Your task to perform on an android device: add a contact in the contacts app Image 0: 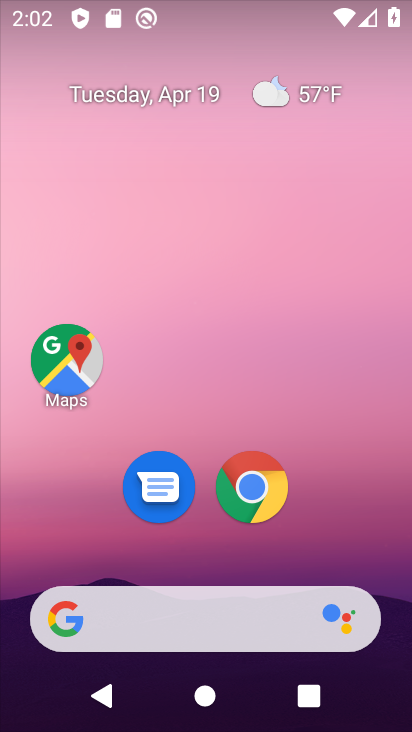
Step 0: drag from (178, 365) to (198, 13)
Your task to perform on an android device: add a contact in the contacts app Image 1: 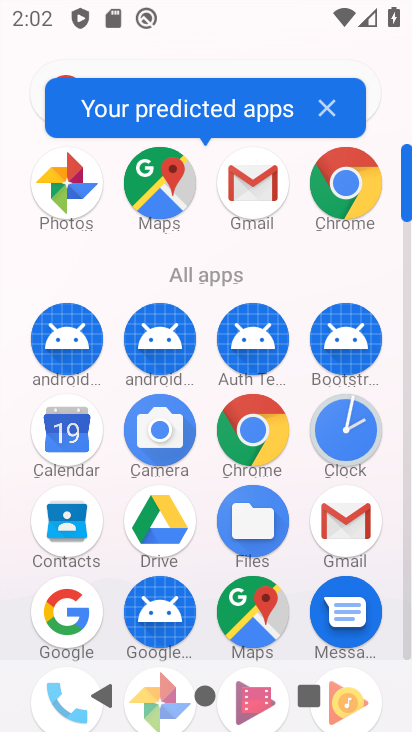
Step 1: click (76, 504)
Your task to perform on an android device: add a contact in the contacts app Image 2: 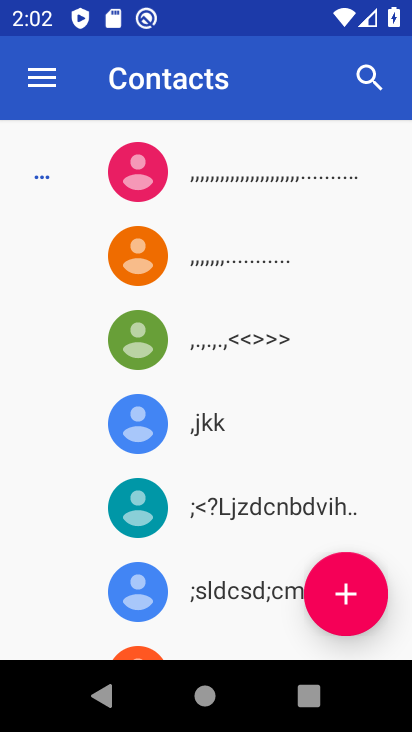
Step 2: click (363, 593)
Your task to perform on an android device: add a contact in the contacts app Image 3: 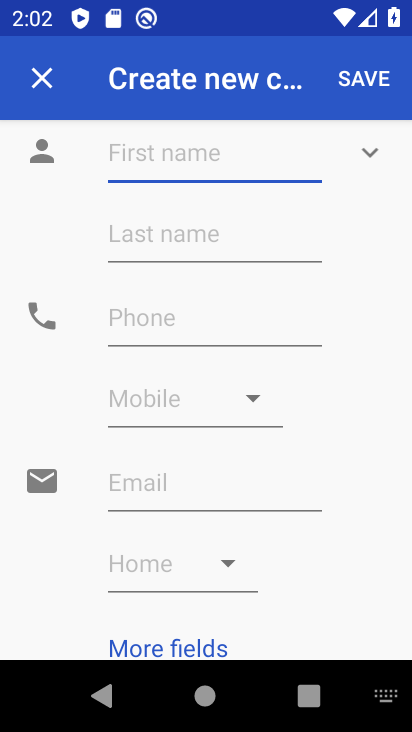
Step 3: type "hop"
Your task to perform on an android device: add a contact in the contacts app Image 4: 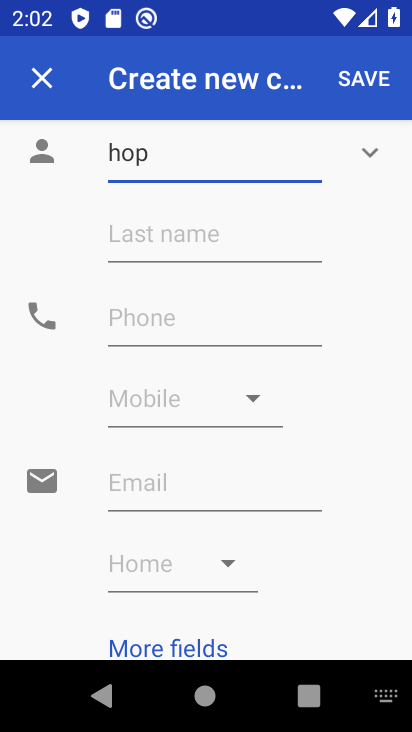
Step 4: click (311, 319)
Your task to perform on an android device: add a contact in the contacts app Image 5: 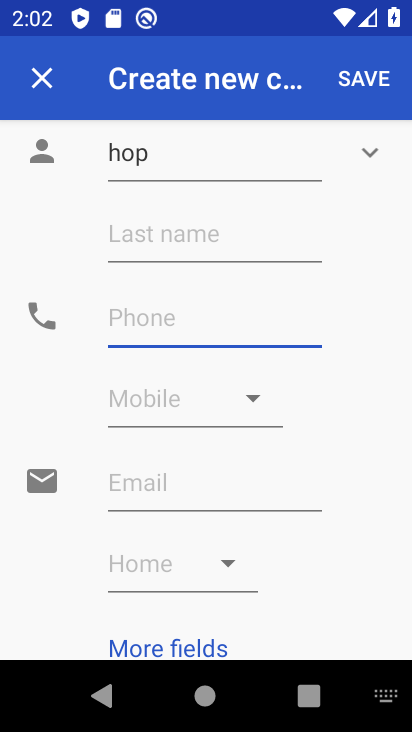
Step 5: type "987654345"
Your task to perform on an android device: add a contact in the contacts app Image 6: 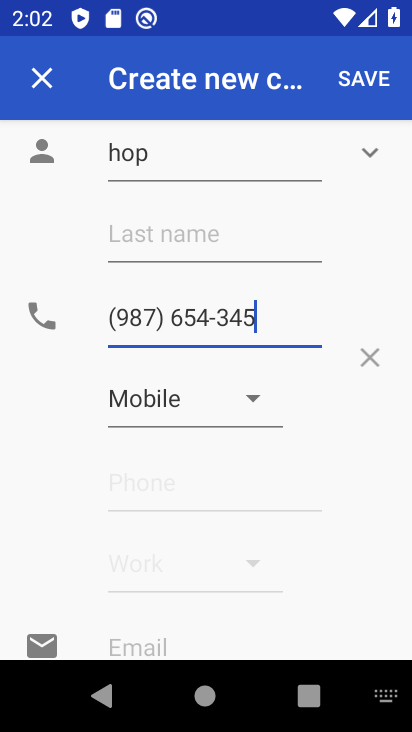
Step 6: type ""
Your task to perform on an android device: add a contact in the contacts app Image 7: 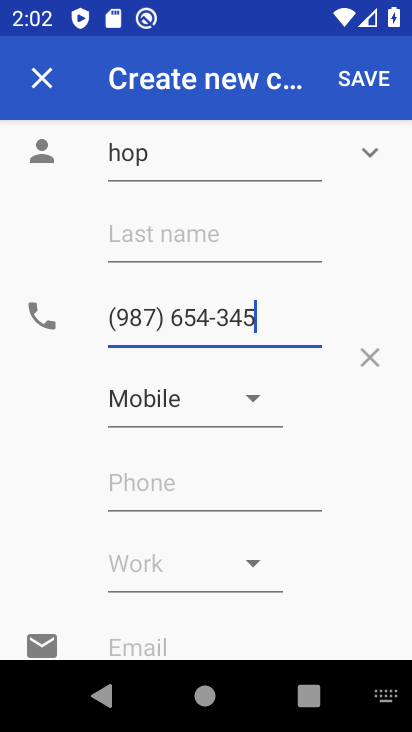
Step 7: click (379, 86)
Your task to perform on an android device: add a contact in the contacts app Image 8: 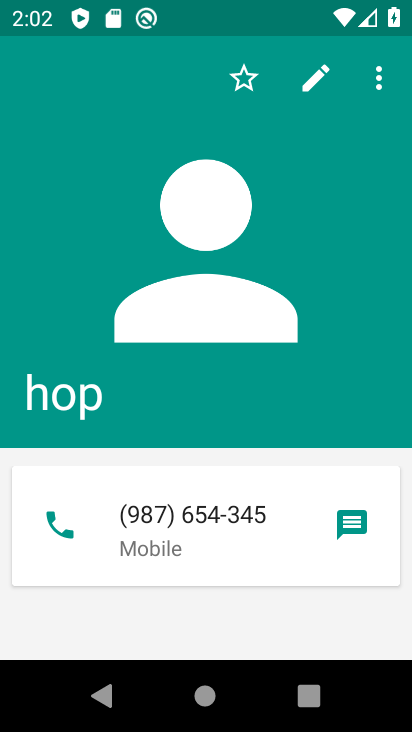
Step 8: task complete